Your task to perform on an android device: open app "Pinterest" (install if not already installed), go to login, and select forgot password Image 0: 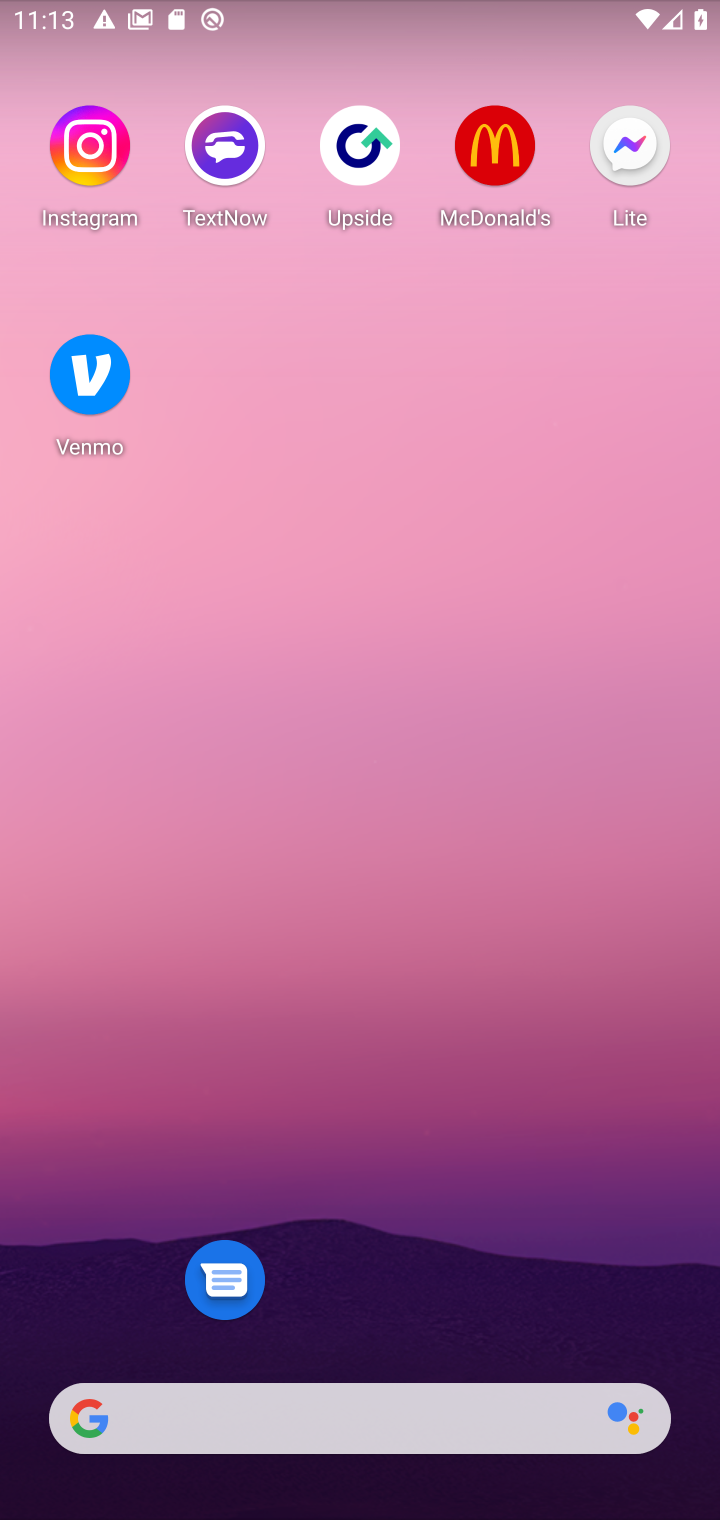
Step 0: drag from (435, 1342) to (509, 23)
Your task to perform on an android device: open app "Pinterest" (install if not already installed), go to login, and select forgot password Image 1: 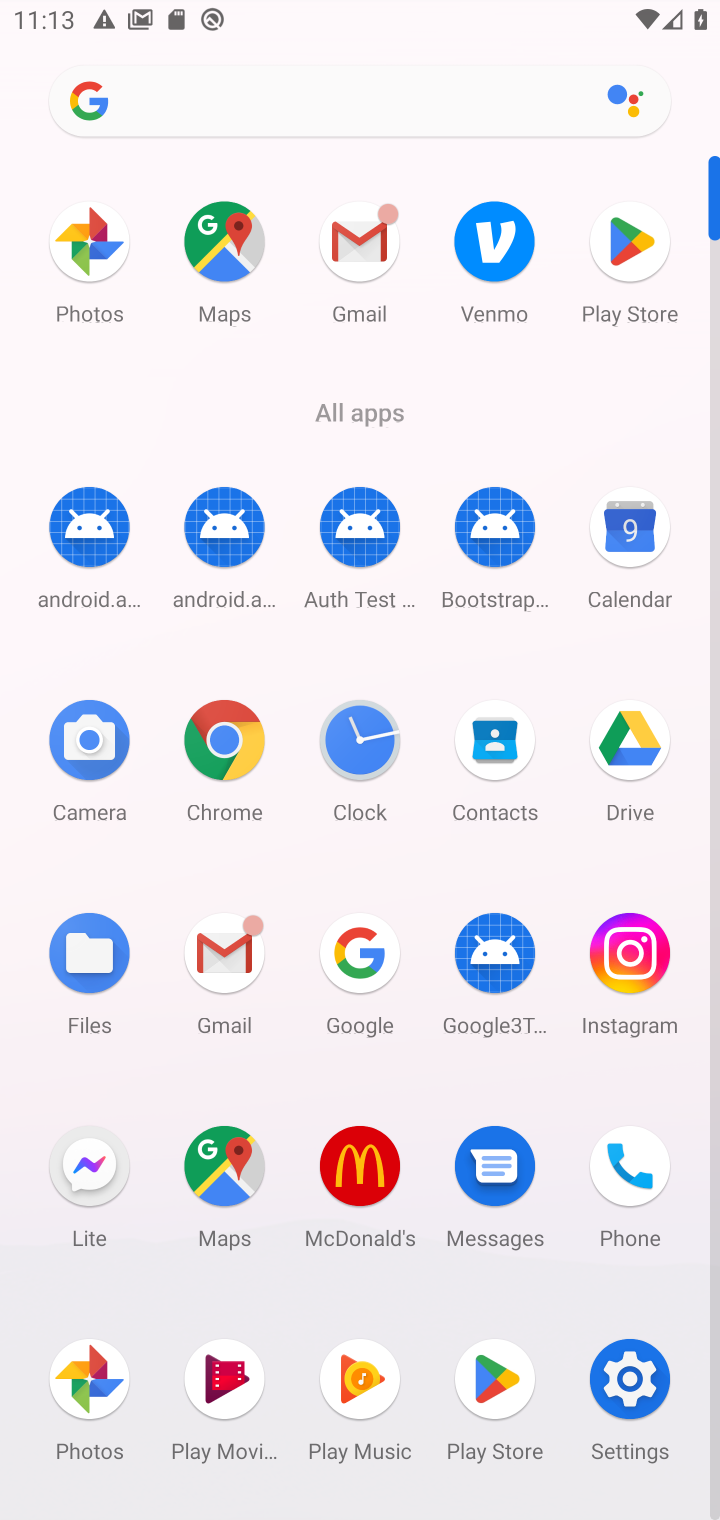
Step 1: click (492, 1375)
Your task to perform on an android device: open app "Pinterest" (install if not already installed), go to login, and select forgot password Image 2: 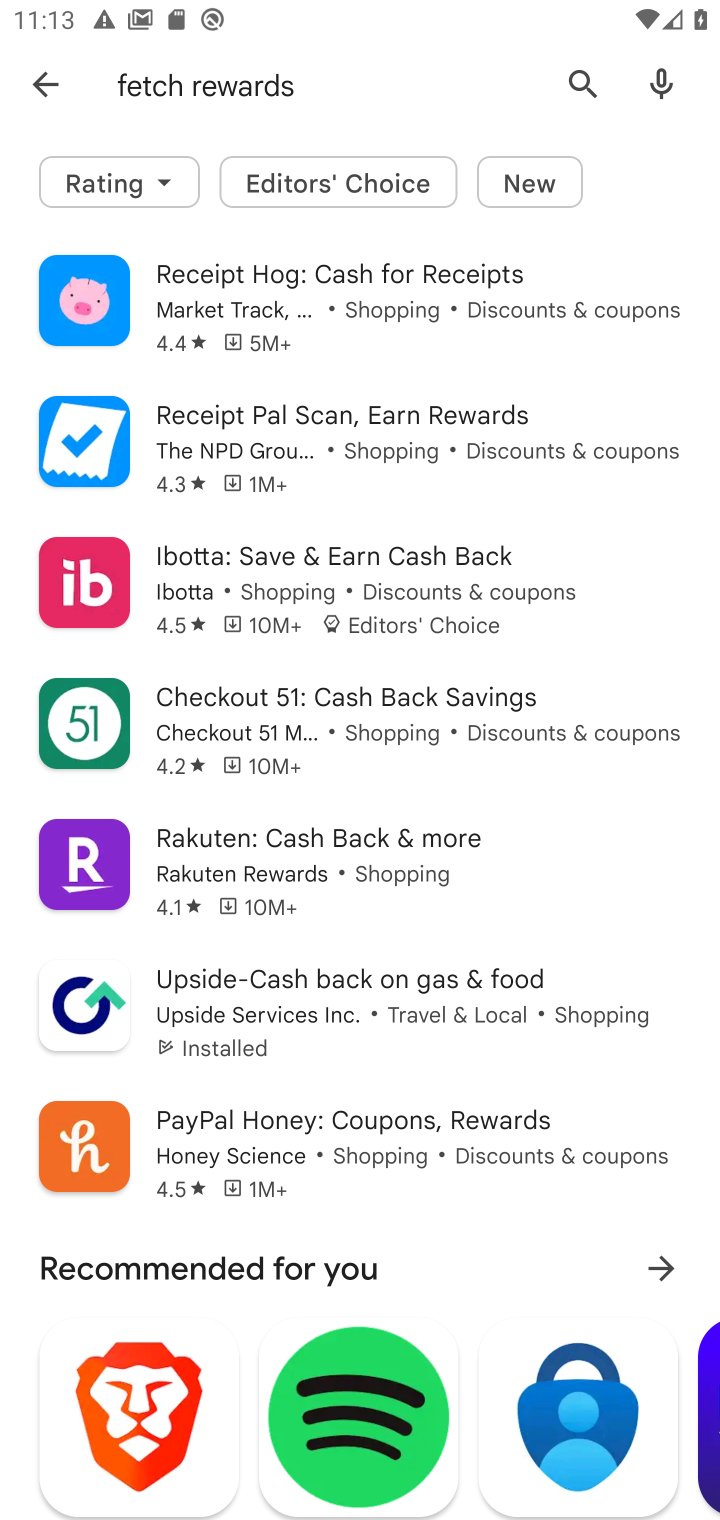
Step 2: click (39, 66)
Your task to perform on an android device: open app "Pinterest" (install if not already installed), go to login, and select forgot password Image 3: 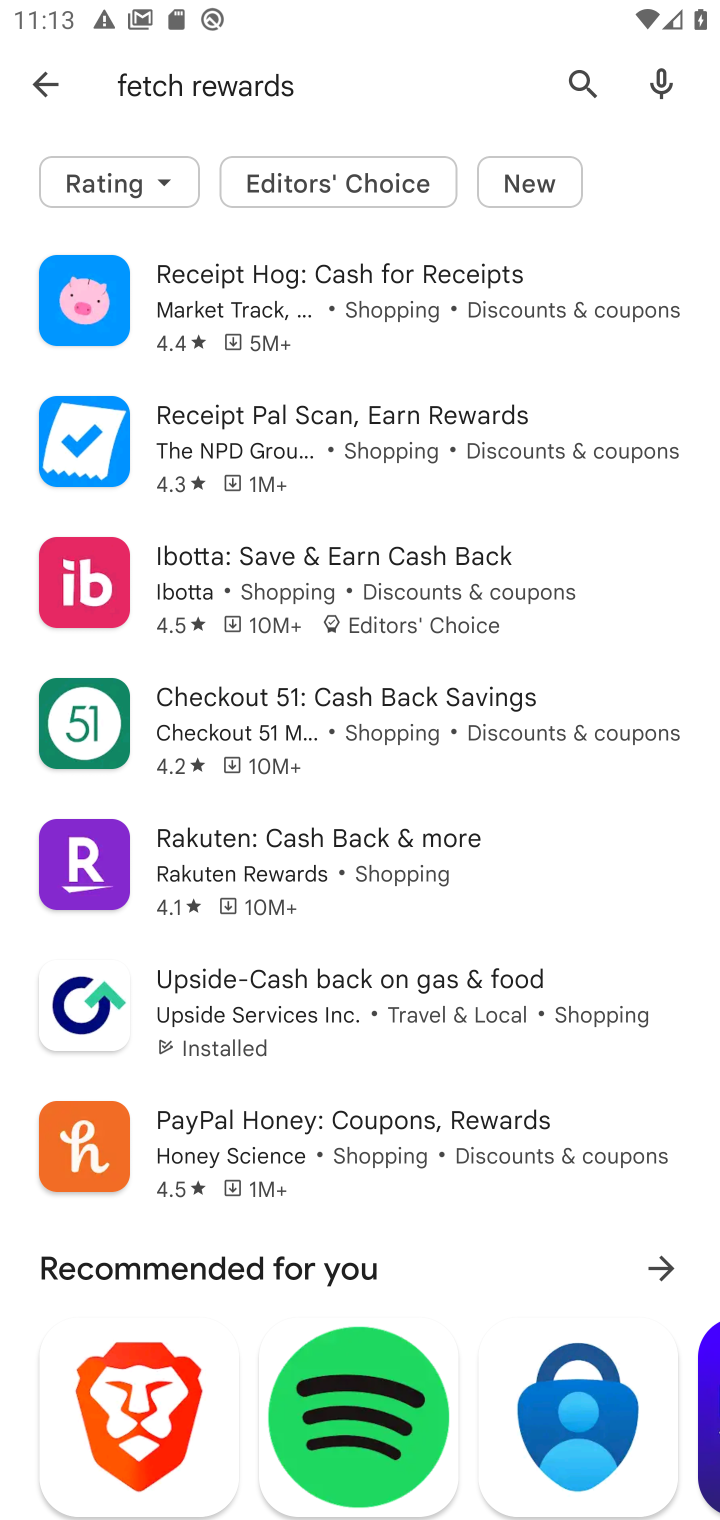
Step 3: click (40, 82)
Your task to perform on an android device: open app "Pinterest" (install if not already installed), go to login, and select forgot password Image 4: 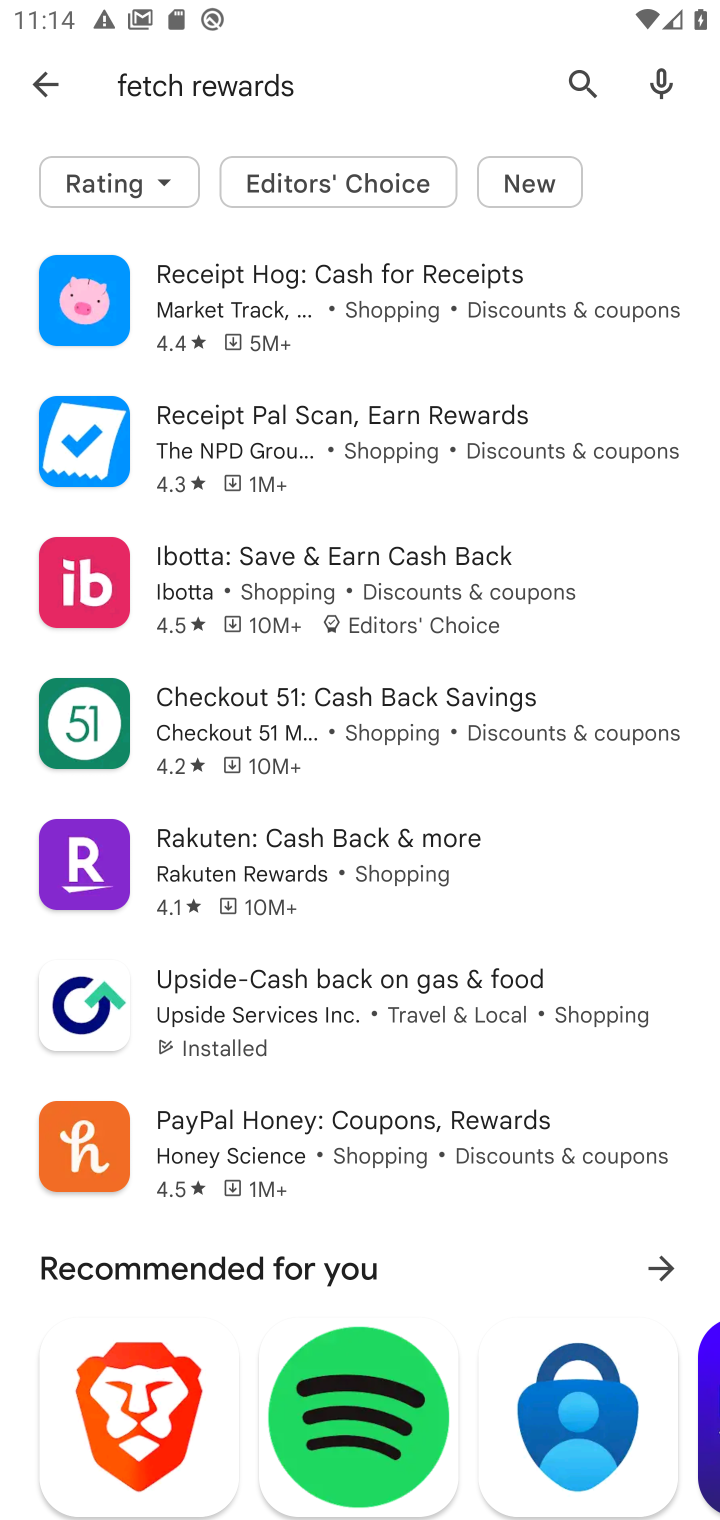
Step 4: click (20, 95)
Your task to perform on an android device: open app "Pinterest" (install if not already installed), go to login, and select forgot password Image 5: 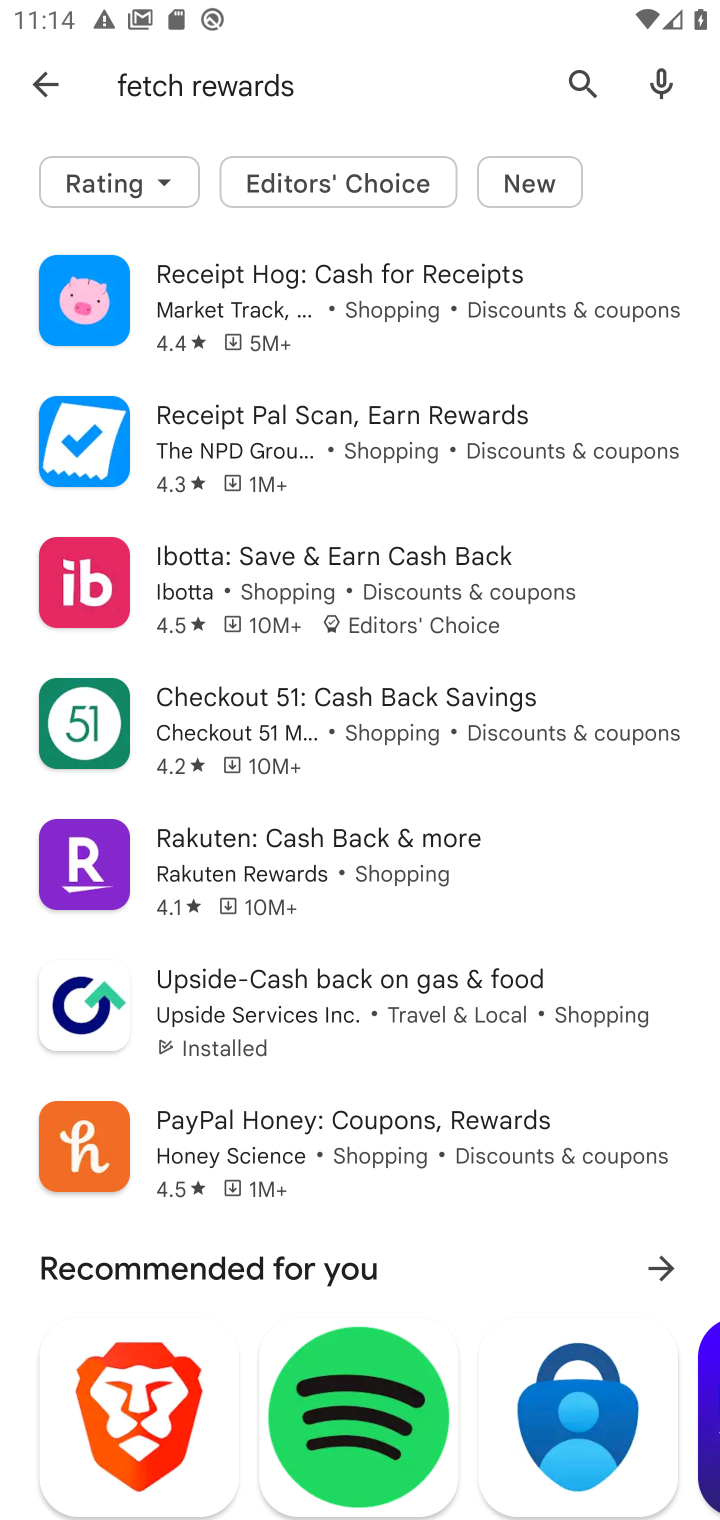
Step 5: click (42, 96)
Your task to perform on an android device: open app "Pinterest" (install if not already installed), go to login, and select forgot password Image 6: 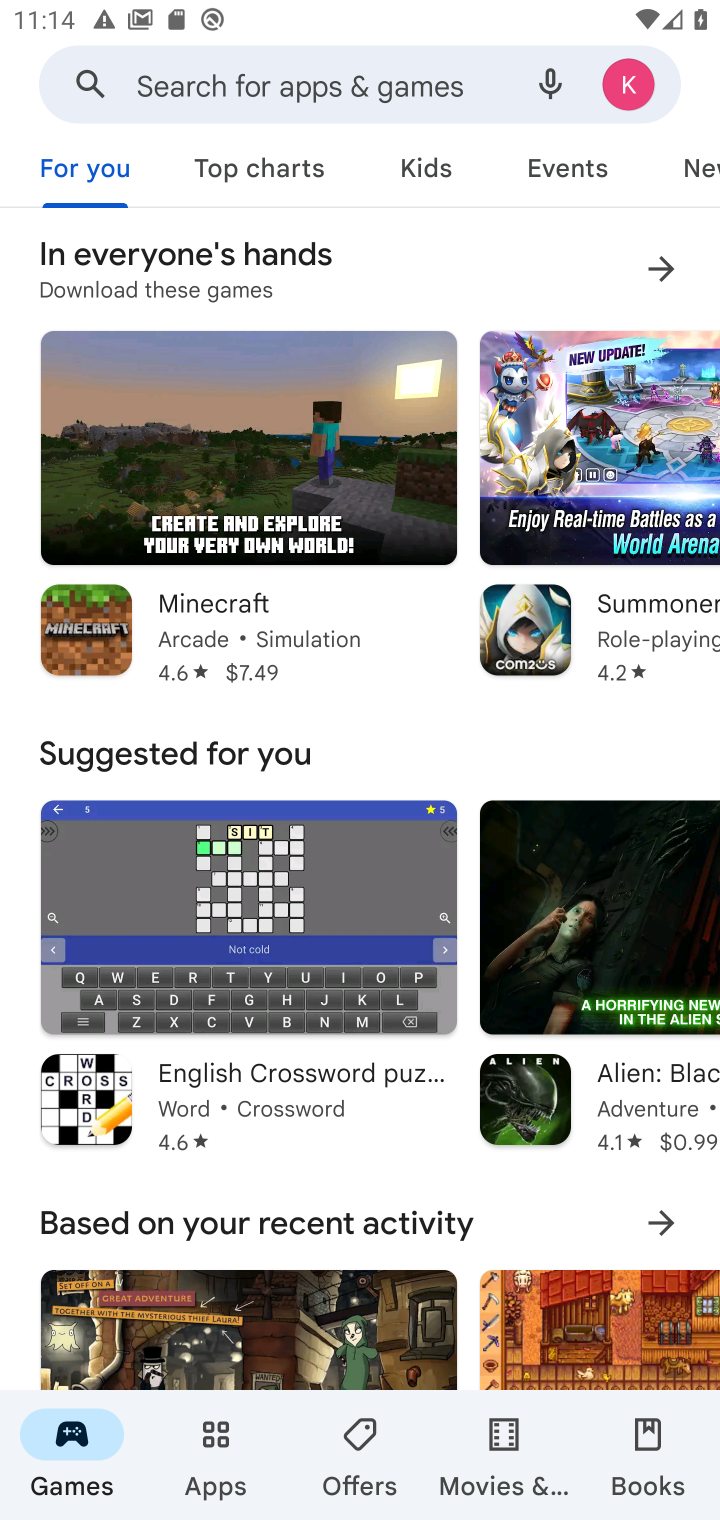
Step 6: click (125, 76)
Your task to perform on an android device: open app "Pinterest" (install if not already installed), go to login, and select forgot password Image 7: 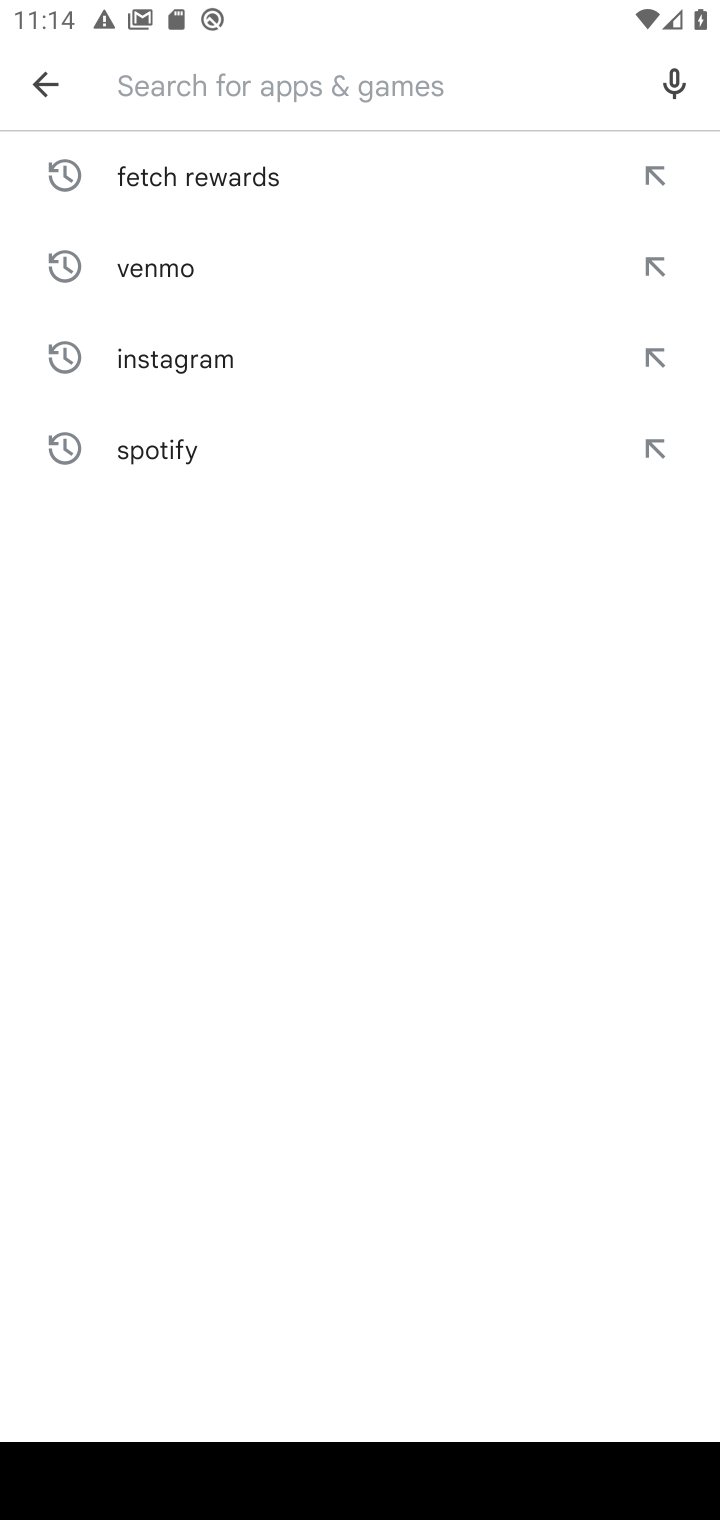
Step 7: type "Pinterest"
Your task to perform on an android device: open app "Pinterest" (install if not already installed), go to login, and select forgot password Image 8: 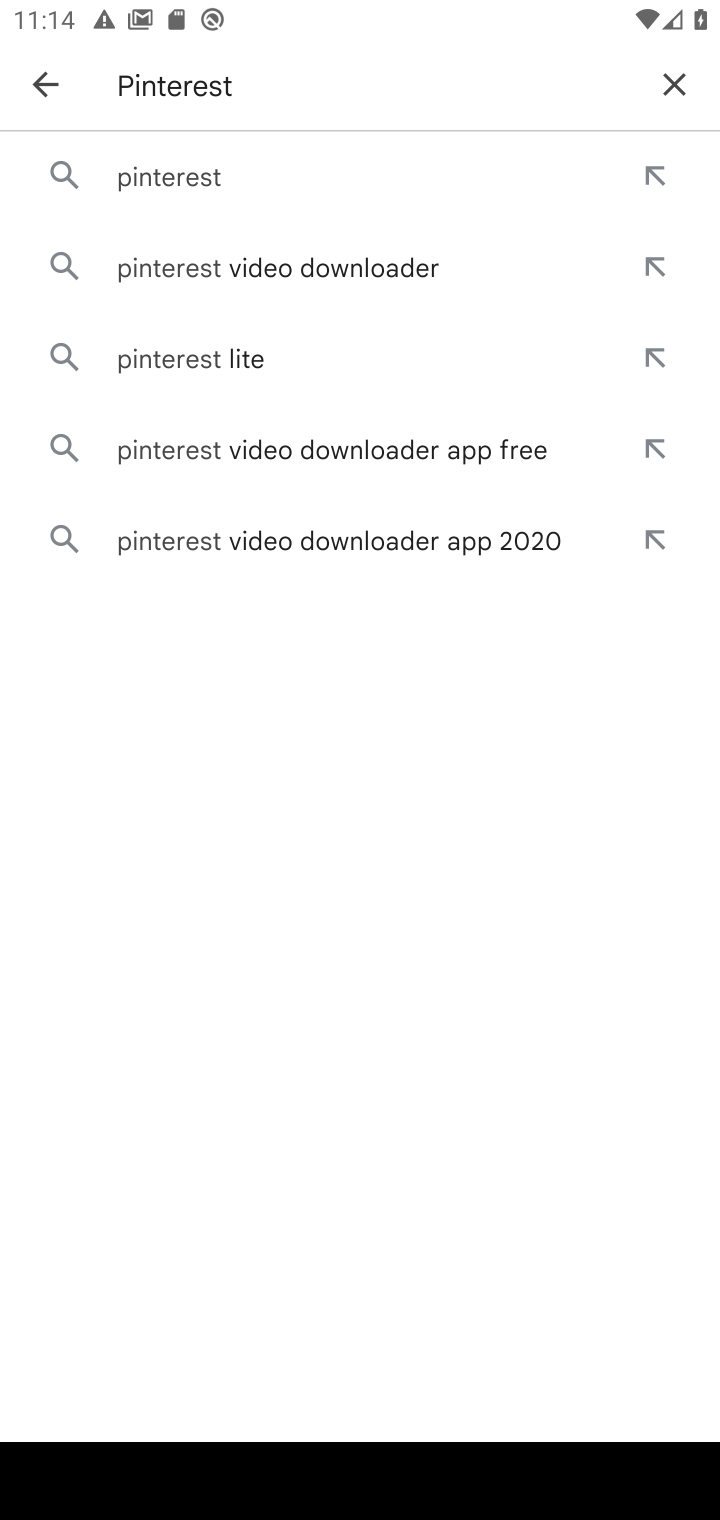
Step 8: type ""
Your task to perform on an android device: open app "Pinterest" (install if not already installed), go to login, and select forgot password Image 9: 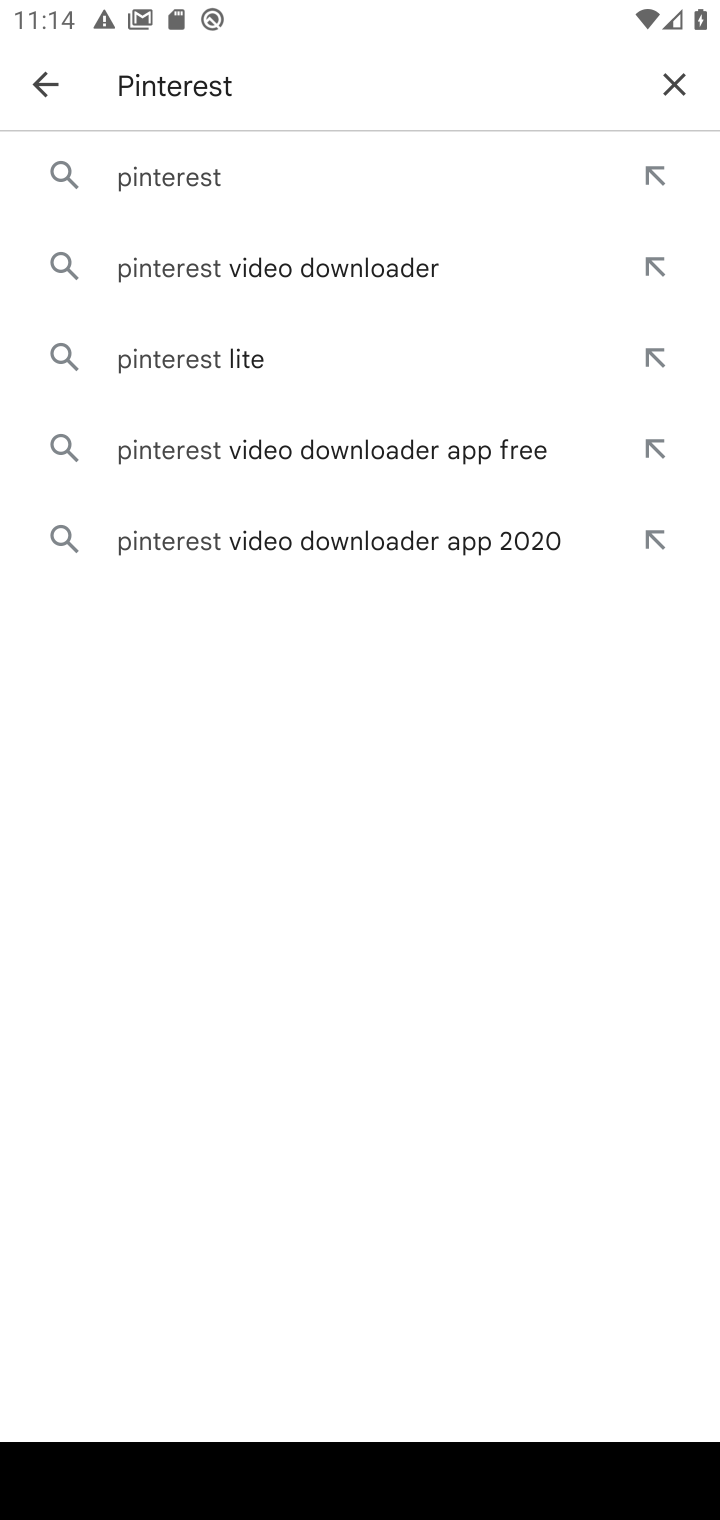
Step 9: click (197, 199)
Your task to perform on an android device: open app "Pinterest" (install if not already installed), go to login, and select forgot password Image 10: 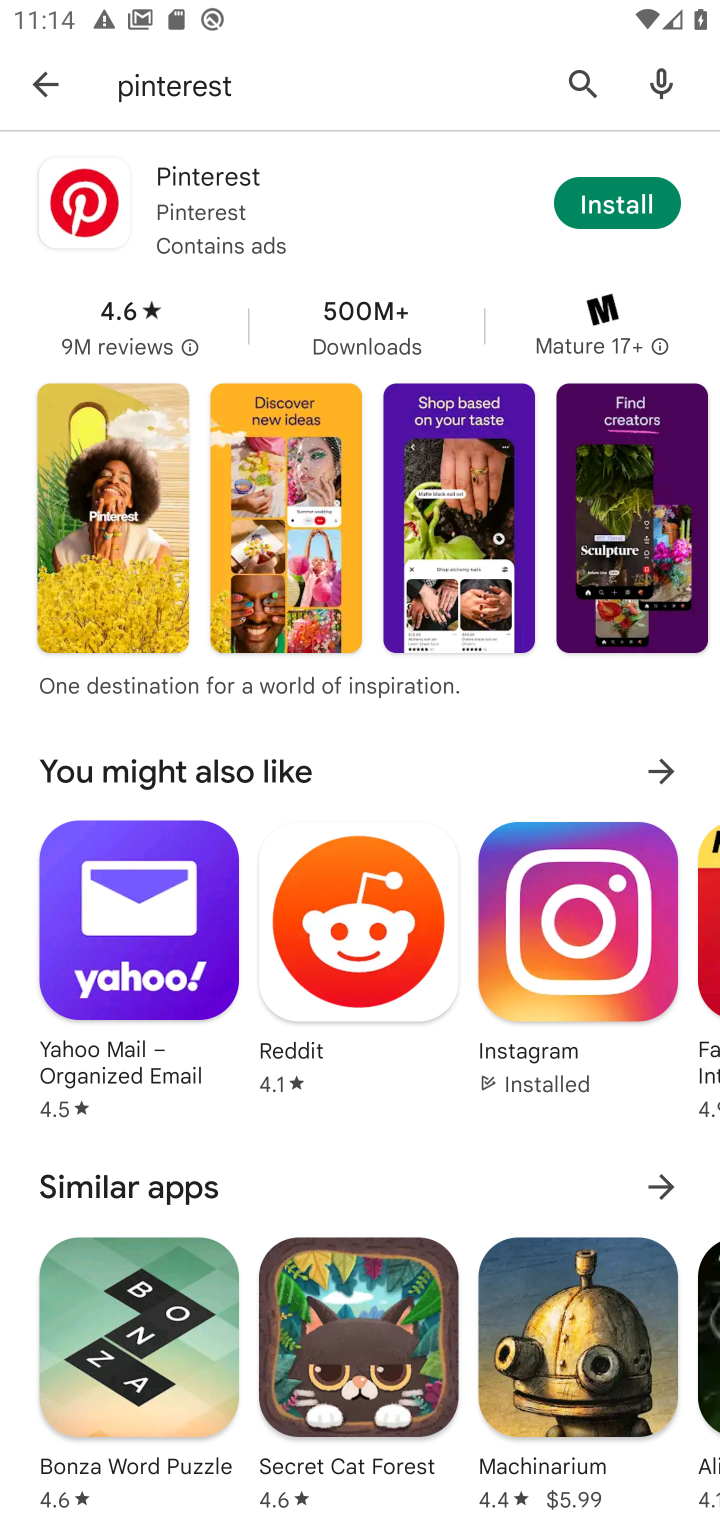
Step 10: click (641, 222)
Your task to perform on an android device: open app "Pinterest" (install if not already installed), go to login, and select forgot password Image 11: 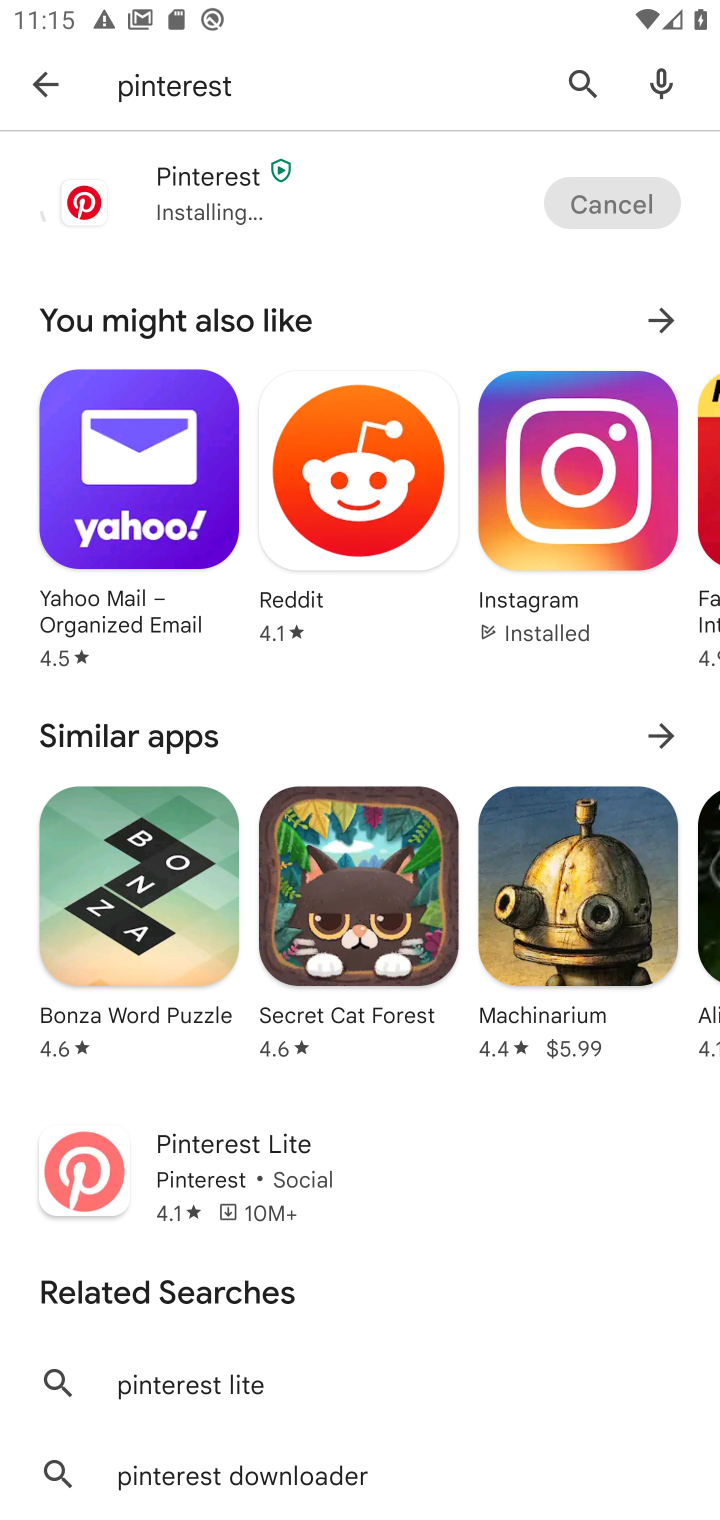
Step 11: click (226, 200)
Your task to perform on an android device: open app "Pinterest" (install if not already installed), go to login, and select forgot password Image 12: 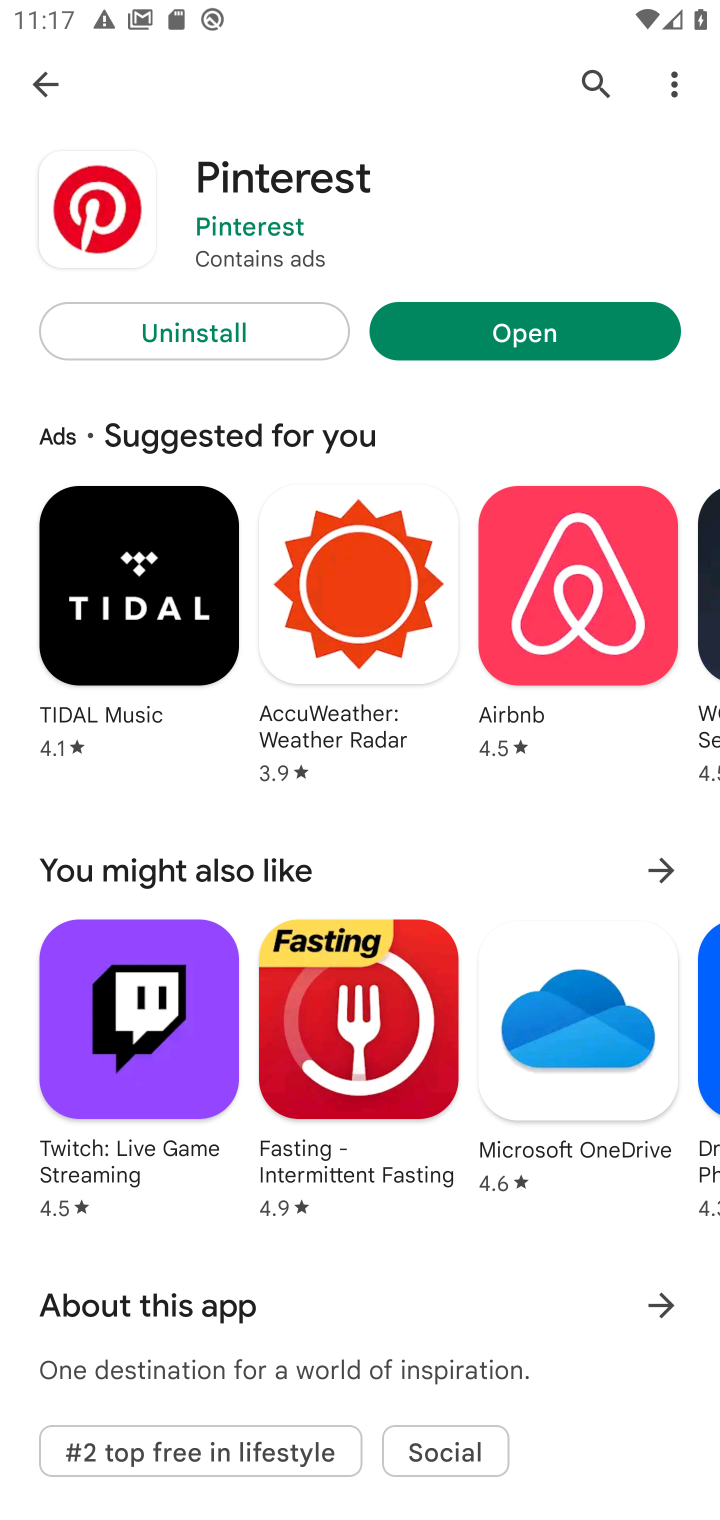
Step 12: click (521, 319)
Your task to perform on an android device: open app "Pinterest" (install if not already installed), go to login, and select forgot password Image 13: 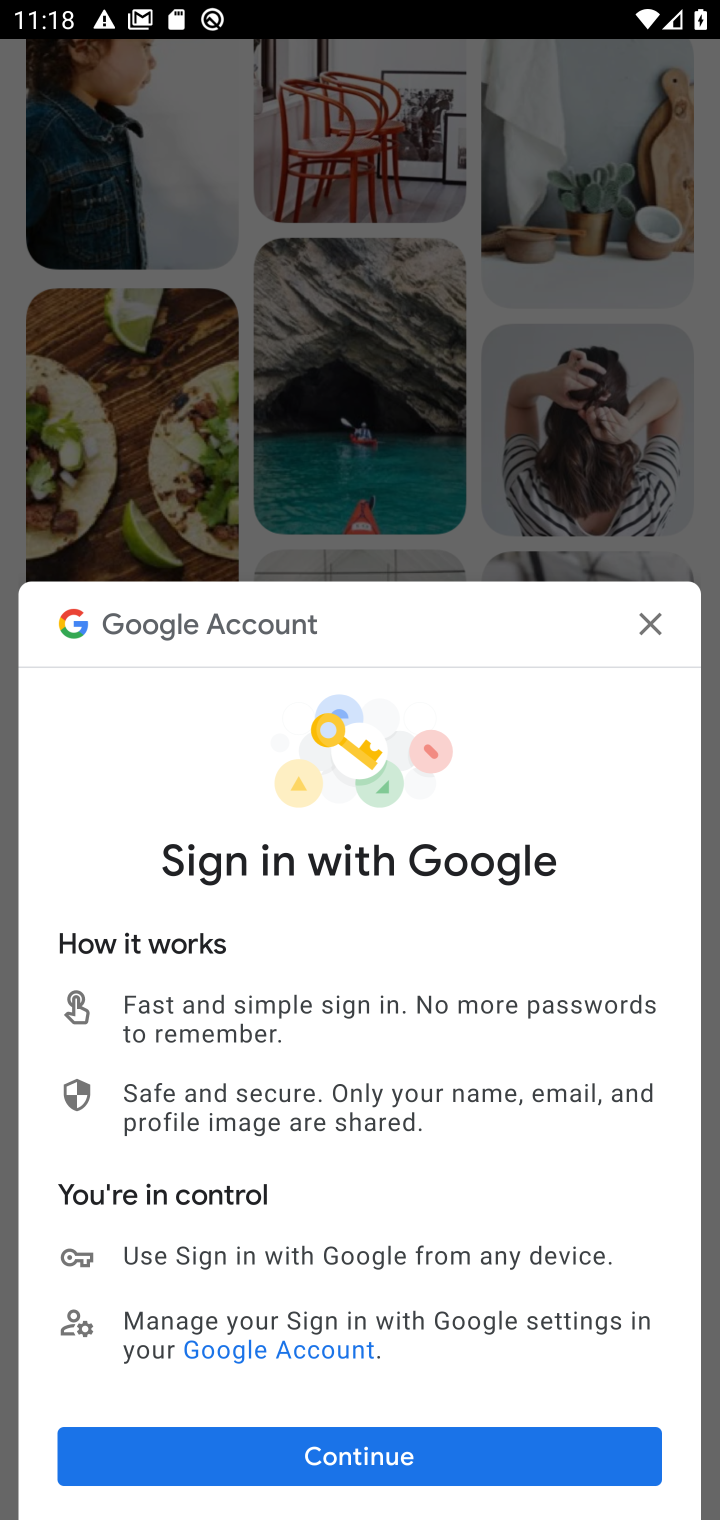
Step 13: click (427, 1453)
Your task to perform on an android device: open app "Pinterest" (install if not already installed), go to login, and select forgot password Image 14: 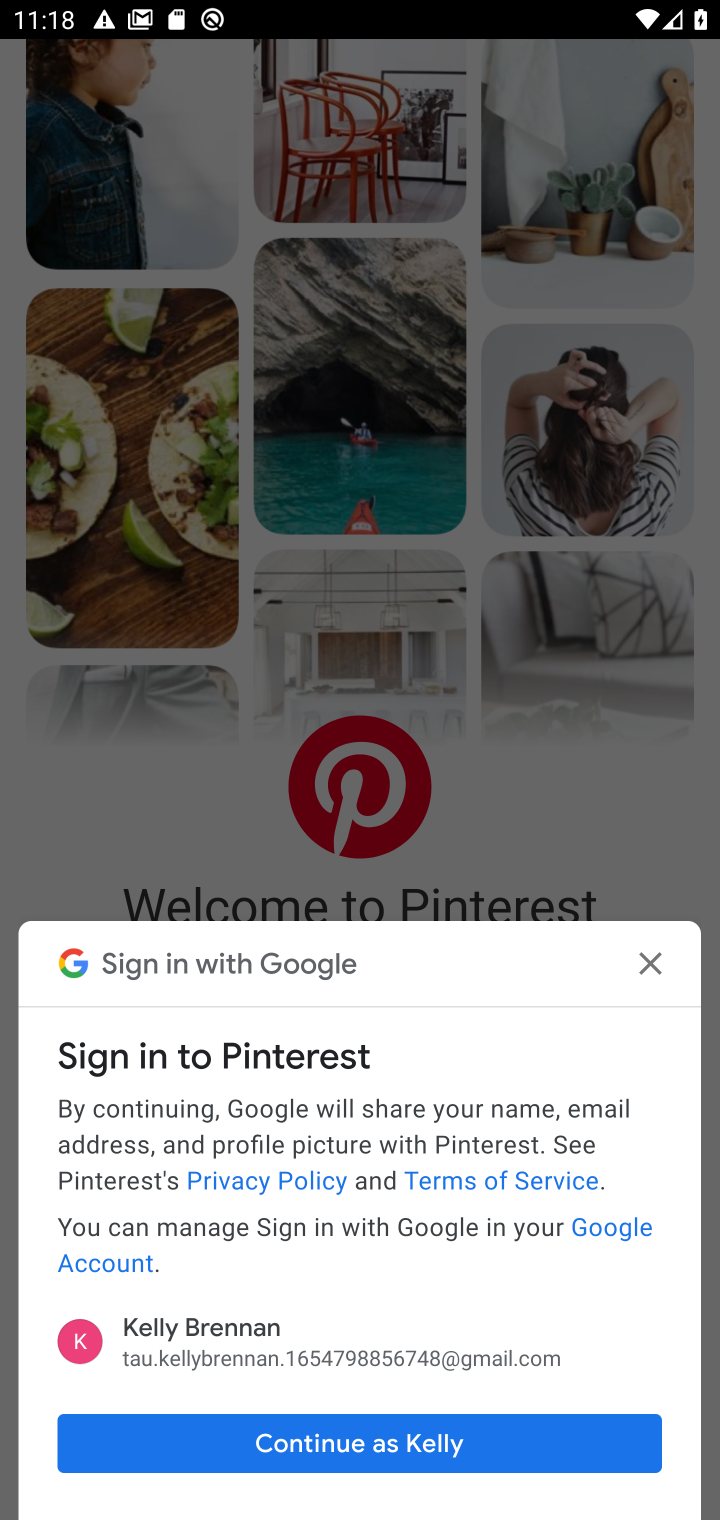
Step 14: click (486, 1445)
Your task to perform on an android device: open app "Pinterest" (install if not already installed), go to login, and select forgot password Image 15: 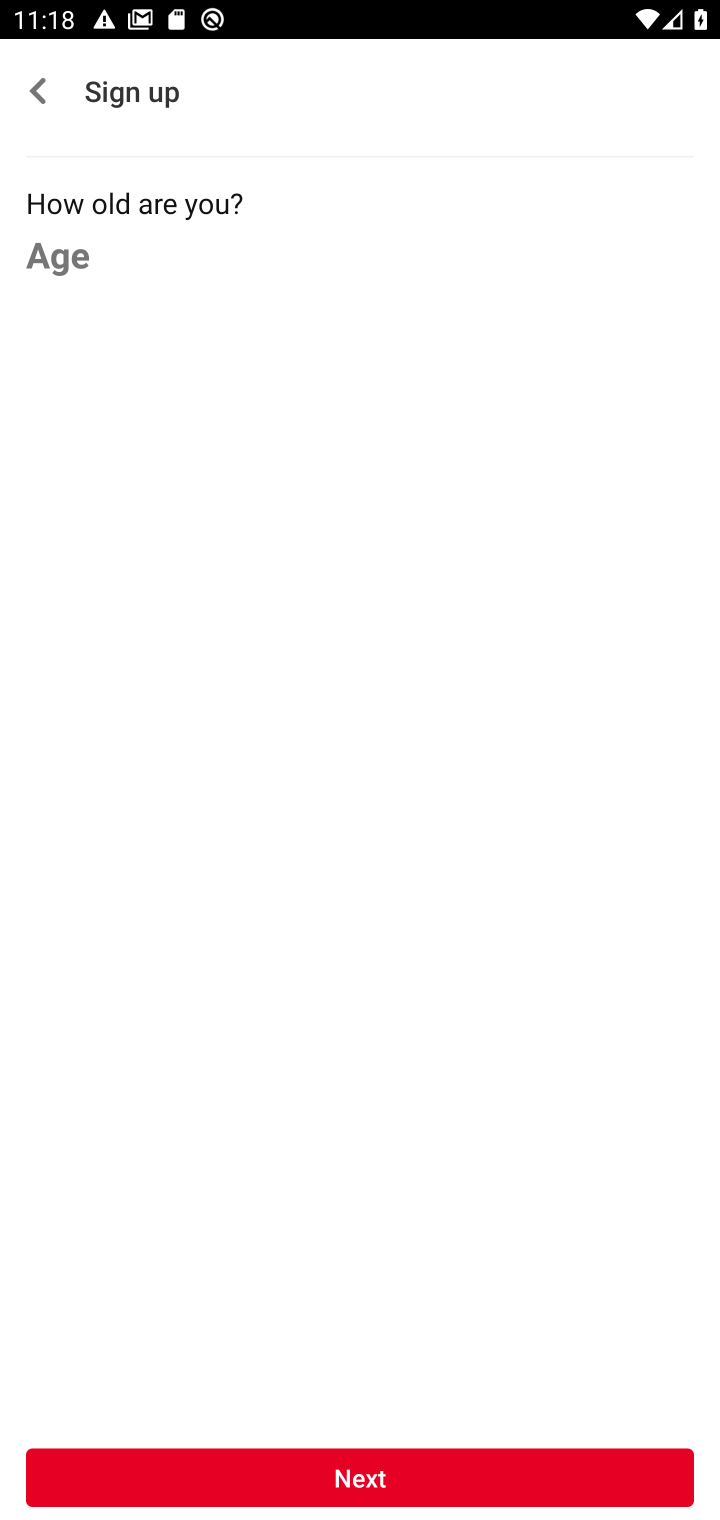
Step 15: click (33, 91)
Your task to perform on an android device: open app "Pinterest" (install if not already installed), go to login, and select forgot password Image 16: 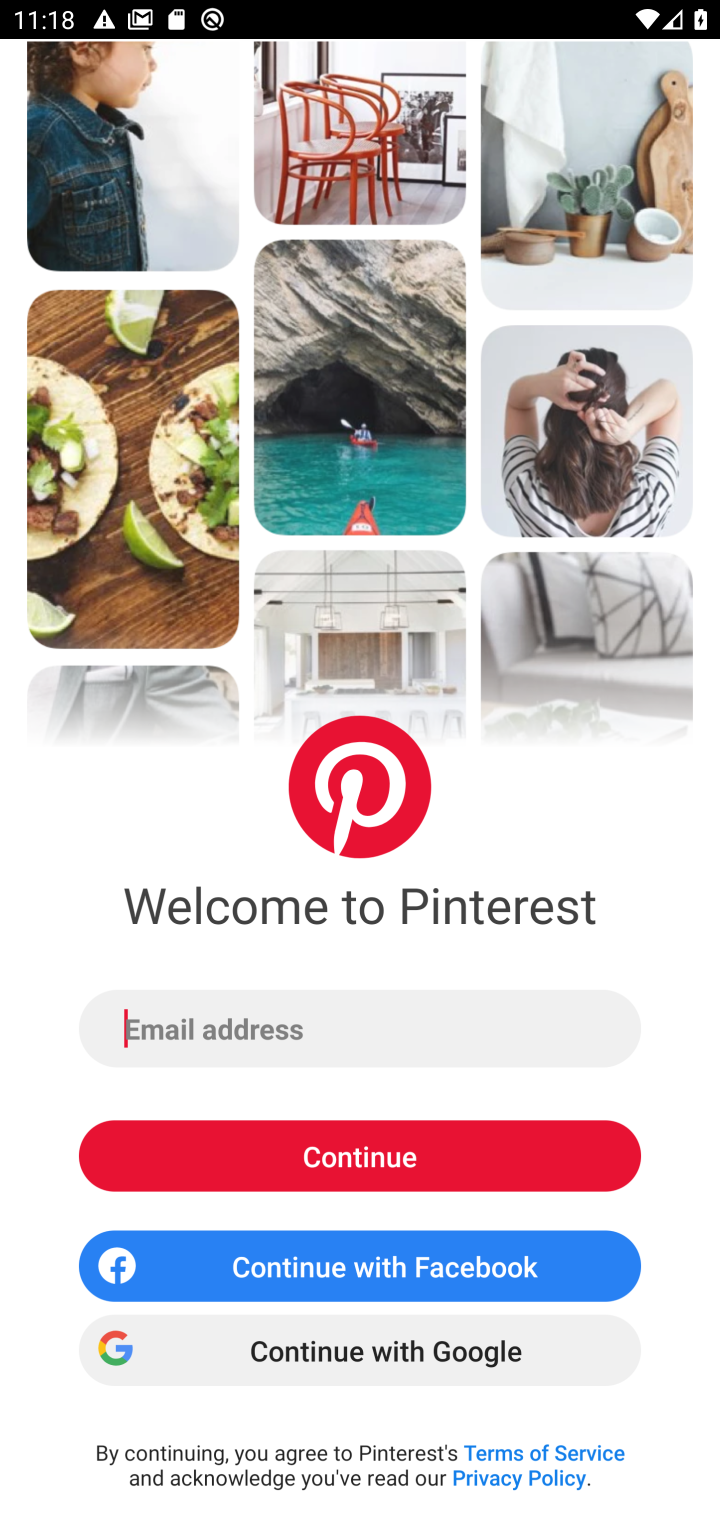
Step 16: task complete